Your task to perform on an android device: What's the weather today? Image 0: 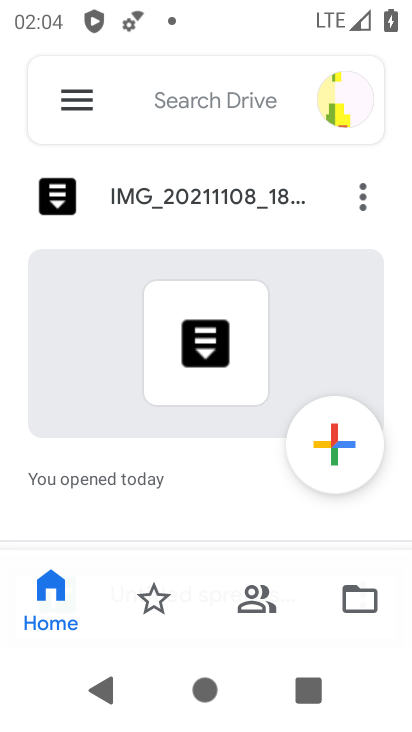
Step 0: press home button
Your task to perform on an android device: What's the weather today? Image 1: 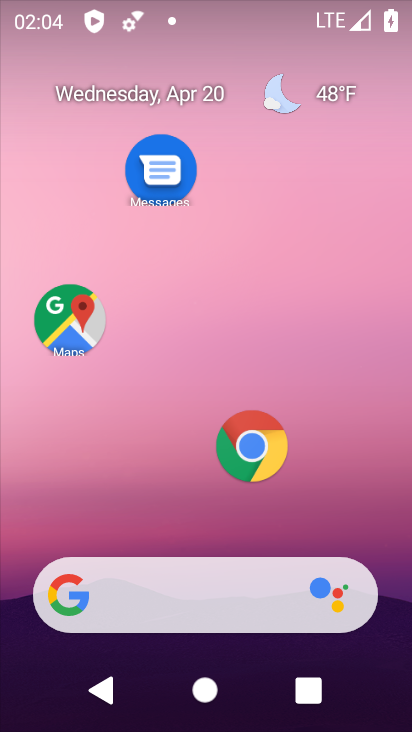
Step 1: click (310, 94)
Your task to perform on an android device: What's the weather today? Image 2: 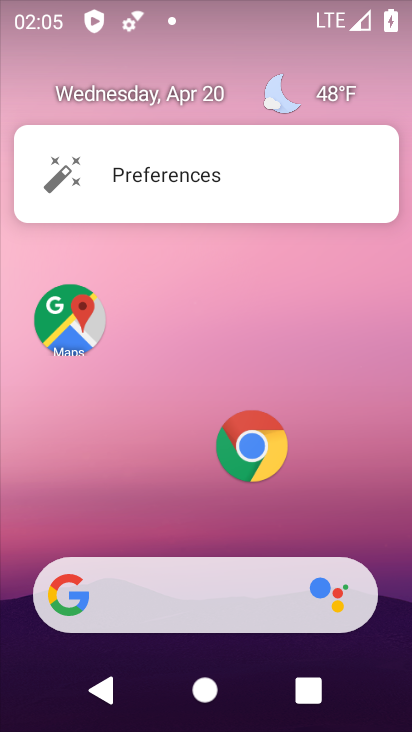
Step 2: click (314, 90)
Your task to perform on an android device: What's the weather today? Image 3: 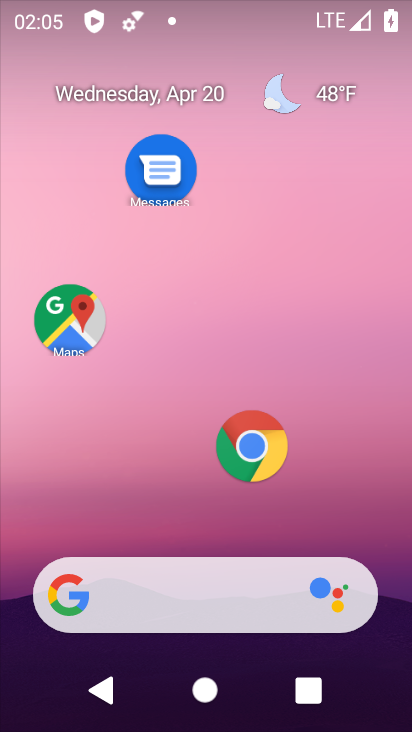
Step 3: click (334, 93)
Your task to perform on an android device: What's the weather today? Image 4: 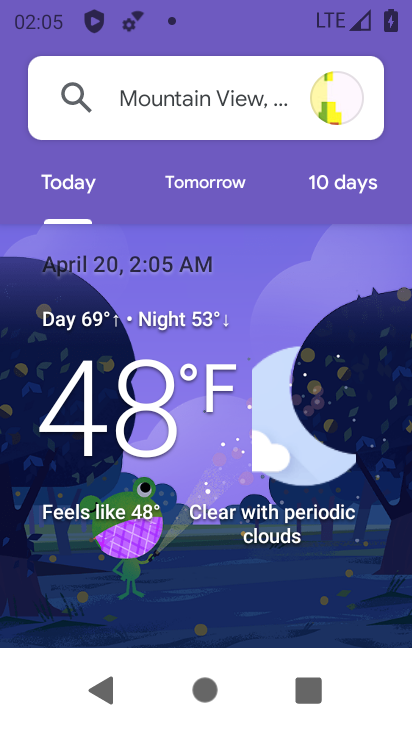
Step 4: task complete